Your task to perform on an android device: open chrome privacy settings Image 0: 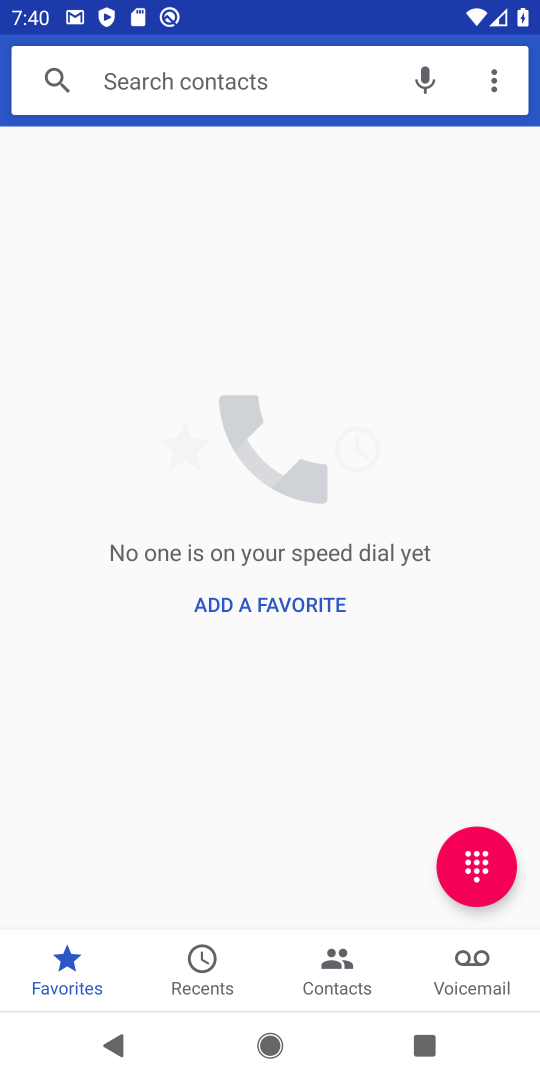
Step 0: press home button
Your task to perform on an android device: open chrome privacy settings Image 1: 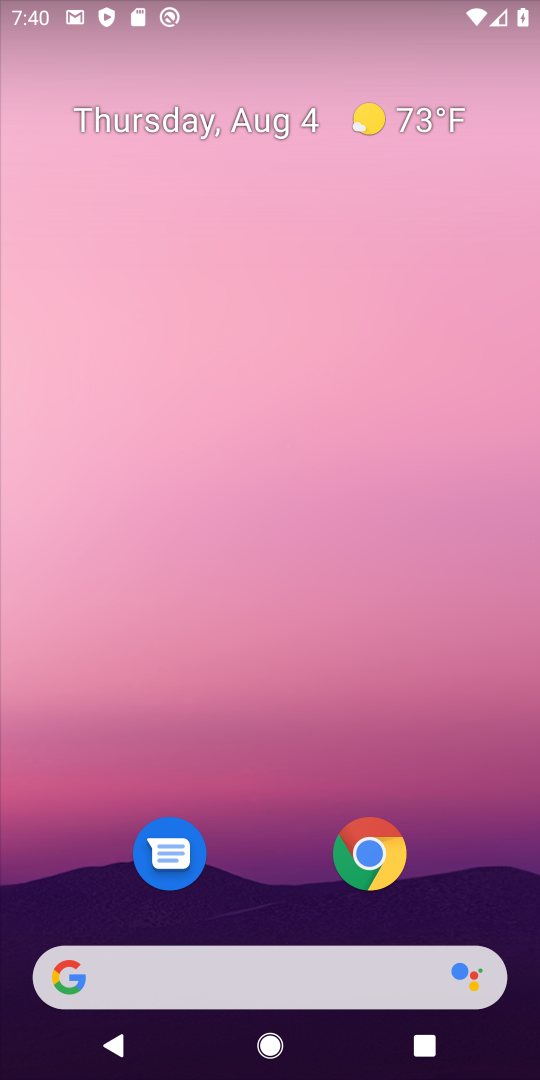
Step 1: drag from (255, 951) to (304, 366)
Your task to perform on an android device: open chrome privacy settings Image 2: 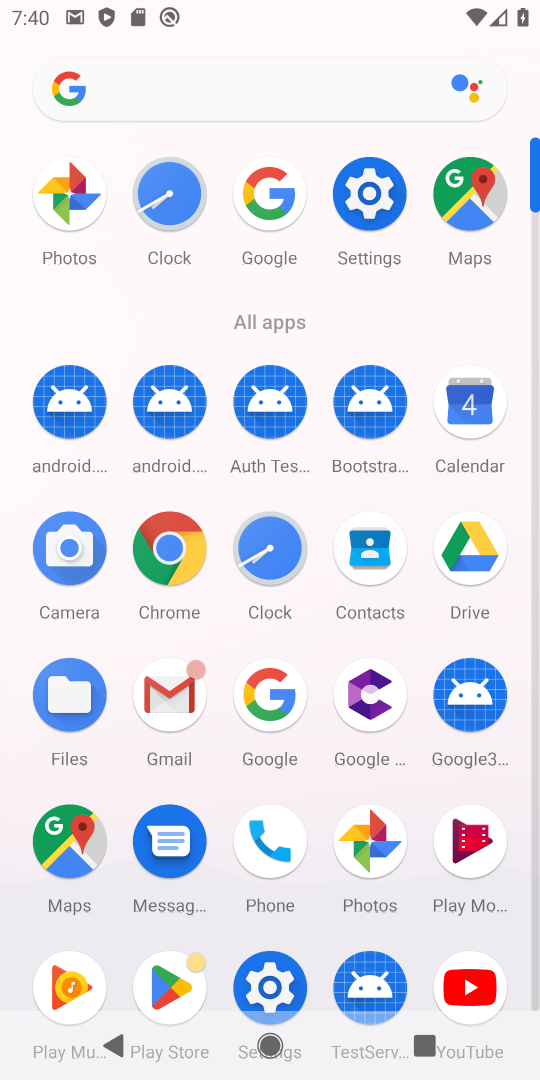
Step 2: click (178, 552)
Your task to perform on an android device: open chrome privacy settings Image 3: 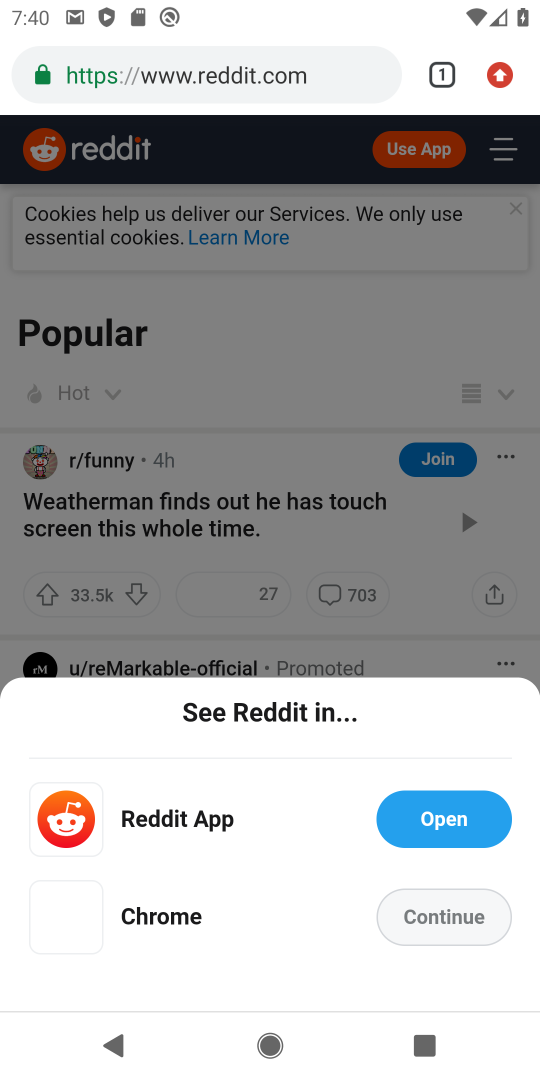
Step 3: click (500, 84)
Your task to perform on an android device: open chrome privacy settings Image 4: 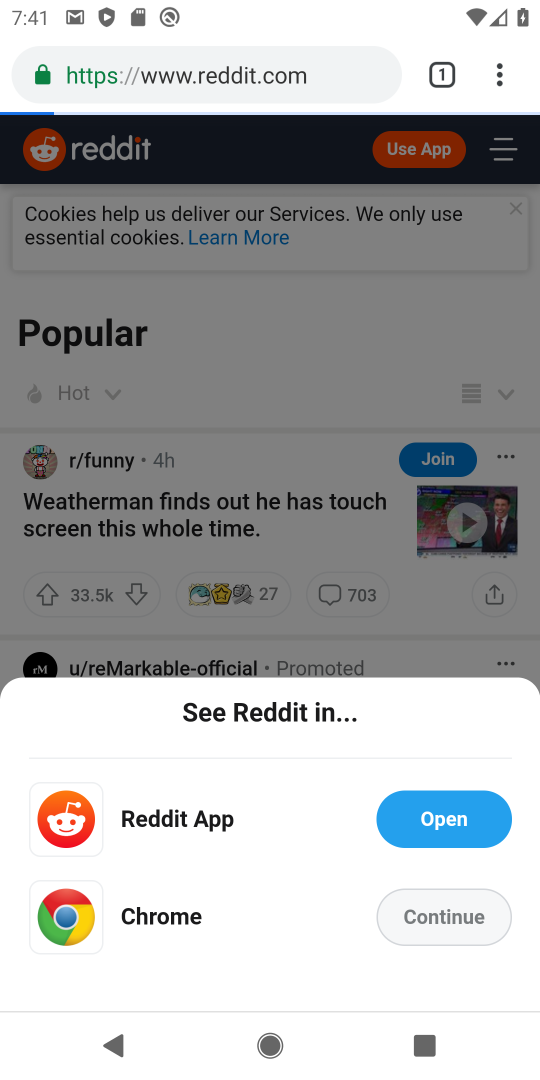
Step 4: click (502, 65)
Your task to perform on an android device: open chrome privacy settings Image 5: 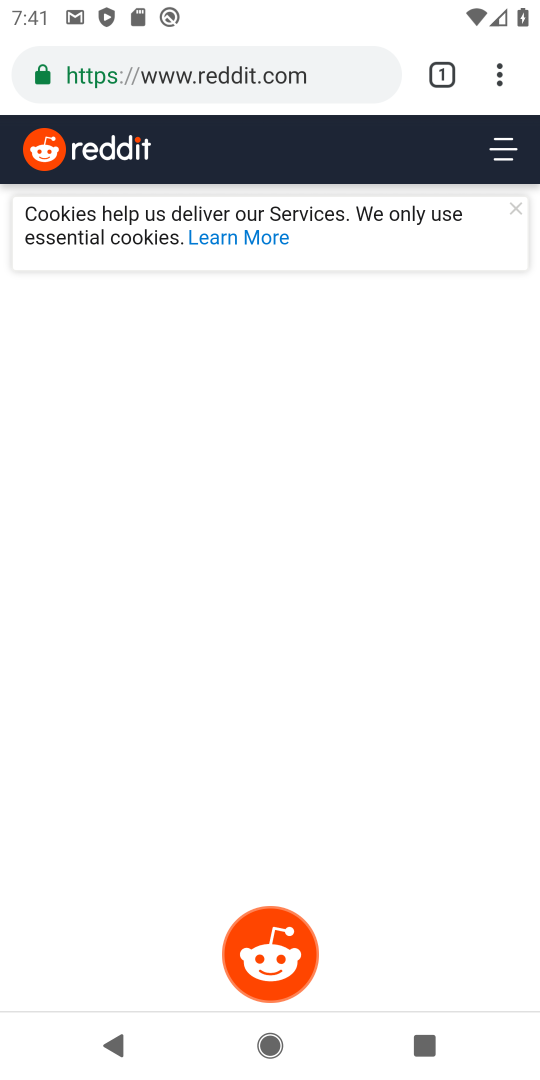
Step 5: click (502, 67)
Your task to perform on an android device: open chrome privacy settings Image 6: 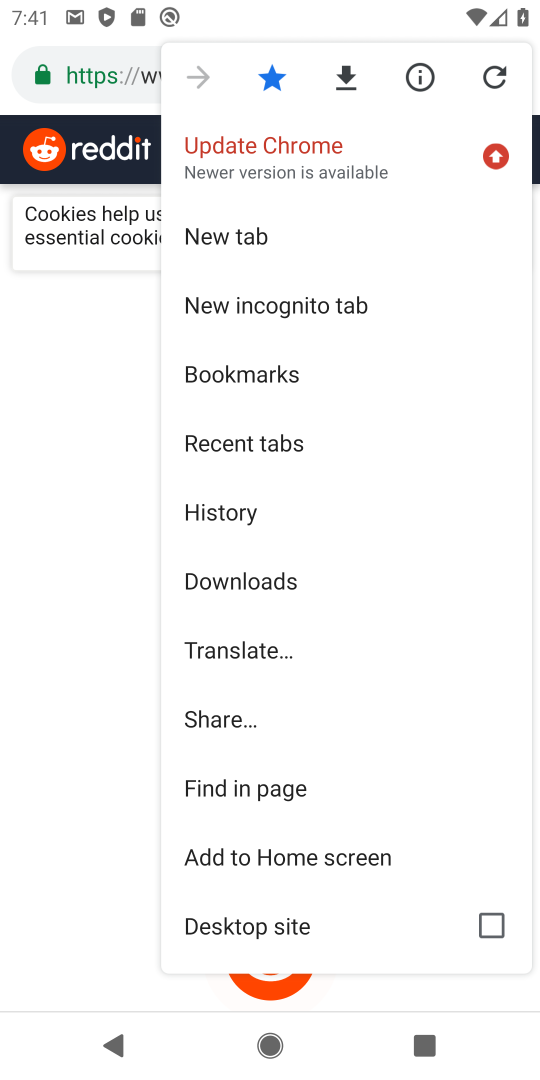
Step 6: drag from (270, 893) to (284, 467)
Your task to perform on an android device: open chrome privacy settings Image 7: 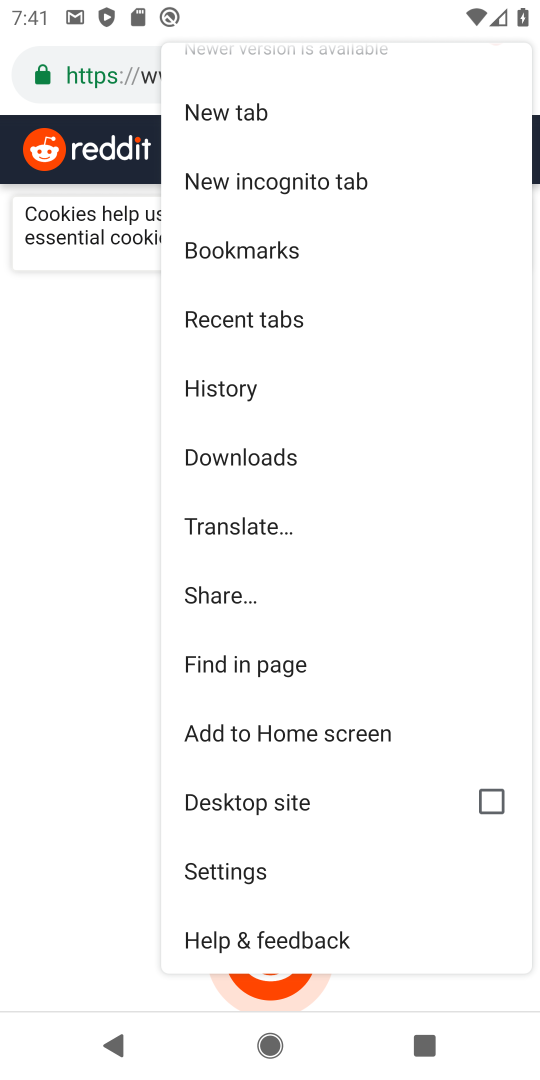
Step 7: click (255, 856)
Your task to perform on an android device: open chrome privacy settings Image 8: 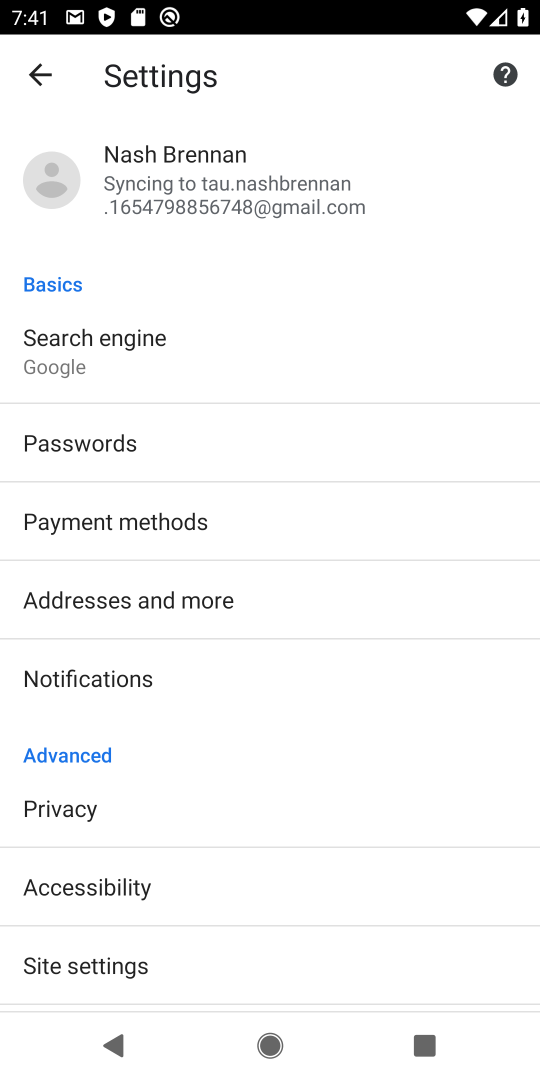
Step 8: click (88, 813)
Your task to perform on an android device: open chrome privacy settings Image 9: 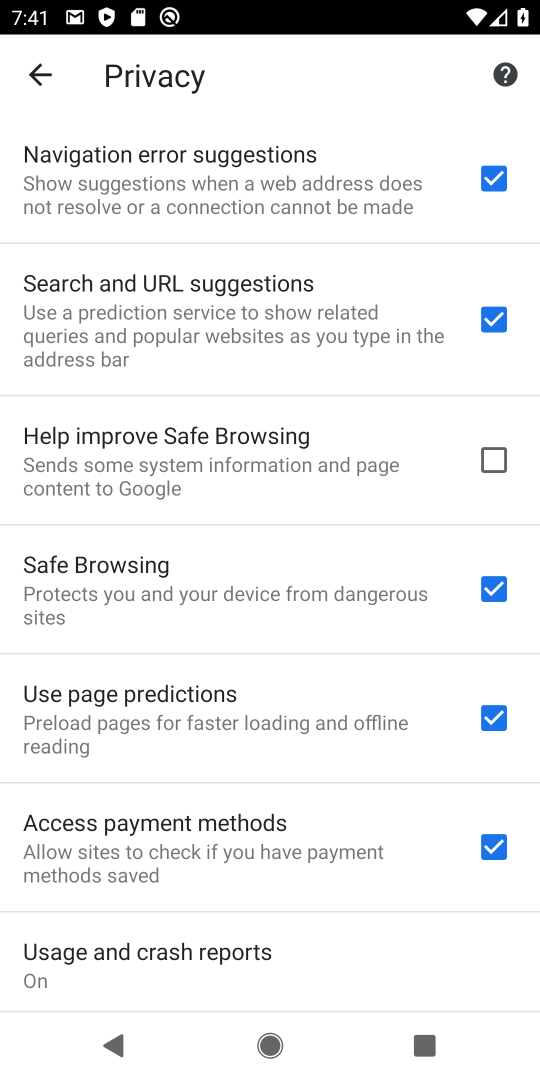
Step 9: task complete